Your task to perform on an android device: turn off priority inbox in the gmail app Image 0: 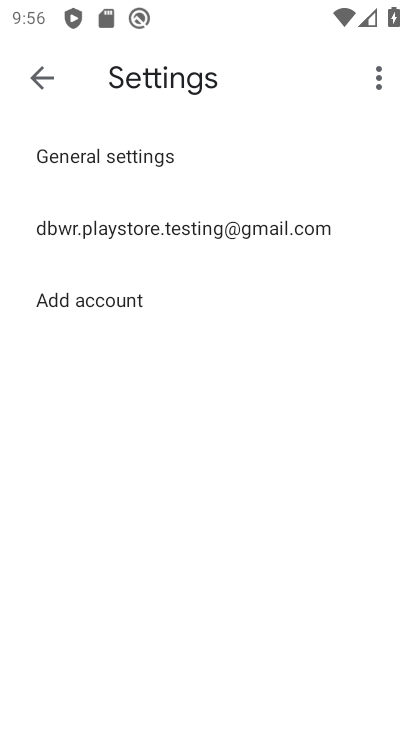
Step 0: press home button
Your task to perform on an android device: turn off priority inbox in the gmail app Image 1: 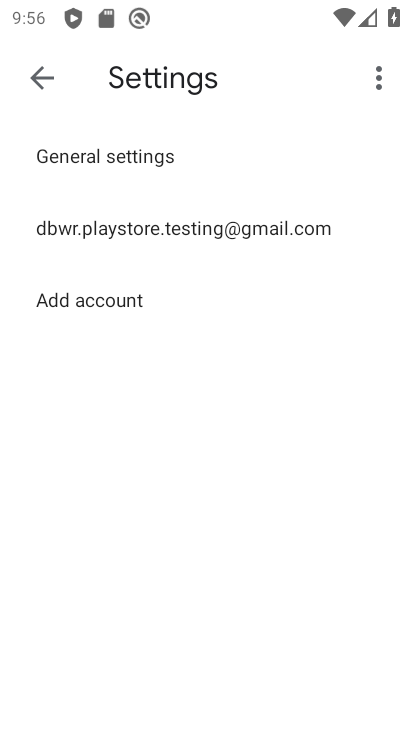
Step 1: click (31, 76)
Your task to perform on an android device: turn off priority inbox in the gmail app Image 2: 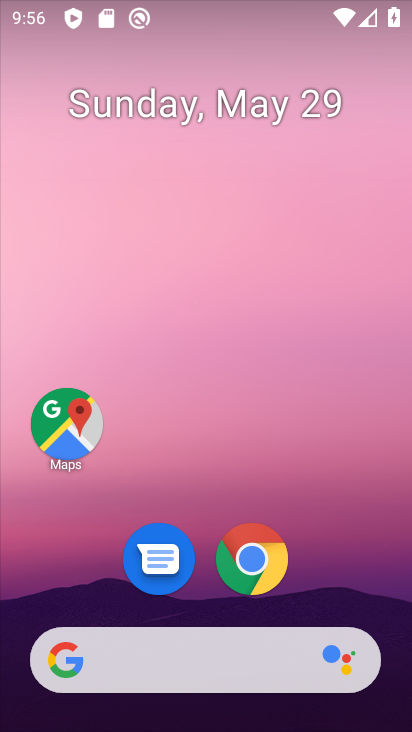
Step 2: drag from (312, 577) to (221, 17)
Your task to perform on an android device: turn off priority inbox in the gmail app Image 3: 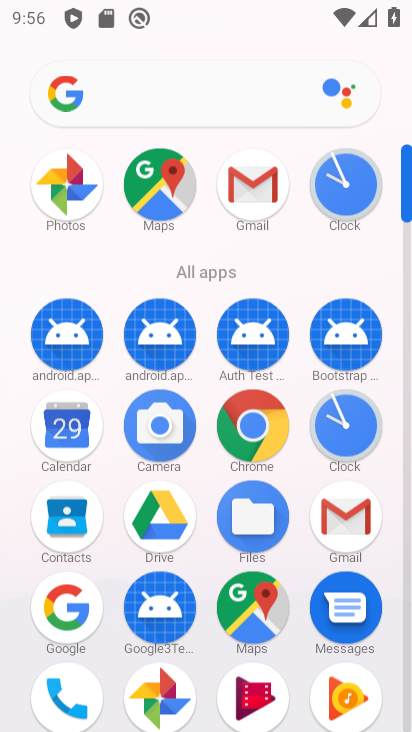
Step 3: click (263, 208)
Your task to perform on an android device: turn off priority inbox in the gmail app Image 4: 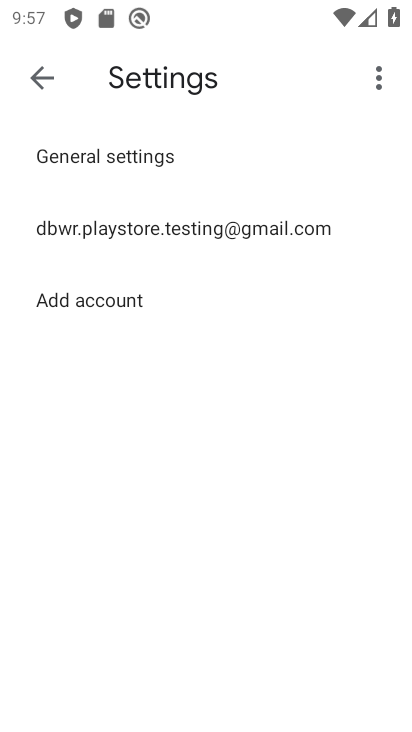
Step 4: click (239, 227)
Your task to perform on an android device: turn off priority inbox in the gmail app Image 5: 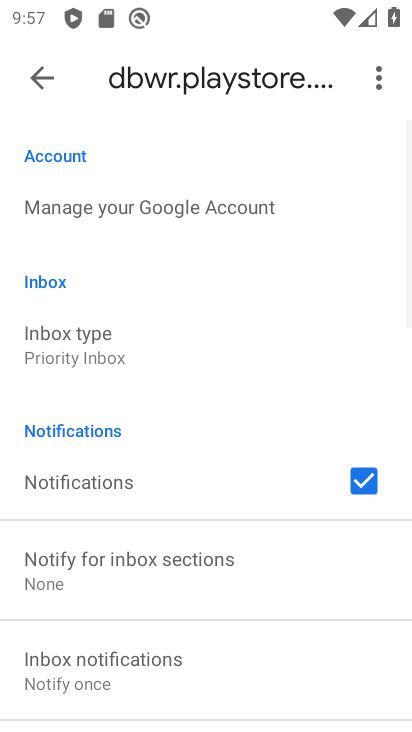
Step 5: click (78, 364)
Your task to perform on an android device: turn off priority inbox in the gmail app Image 6: 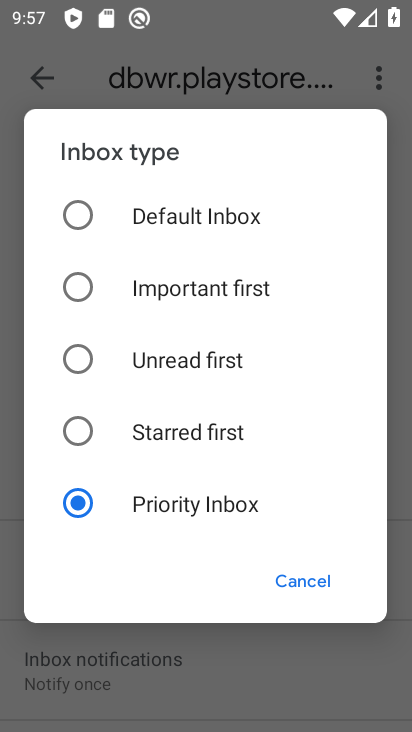
Step 6: task complete